Your task to perform on an android device: turn pop-ups on in chrome Image 0: 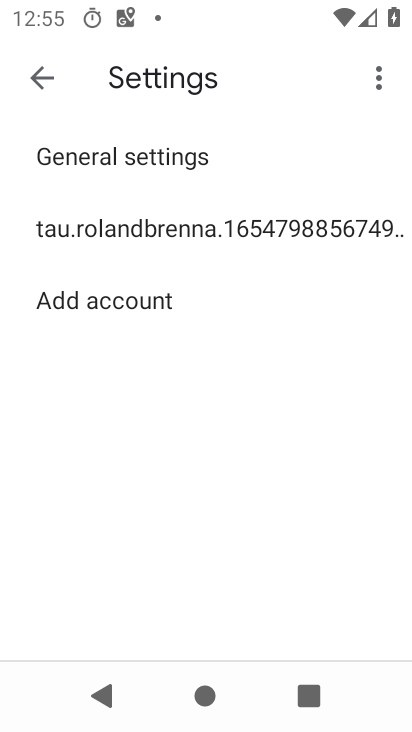
Step 0: press back button
Your task to perform on an android device: turn pop-ups on in chrome Image 1: 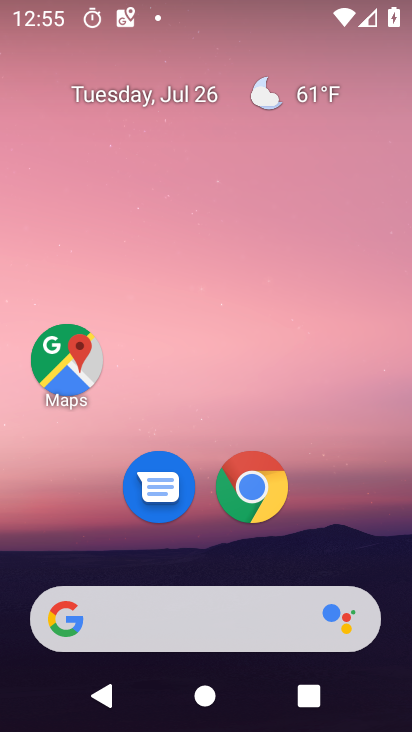
Step 1: click (246, 496)
Your task to perform on an android device: turn pop-ups on in chrome Image 2: 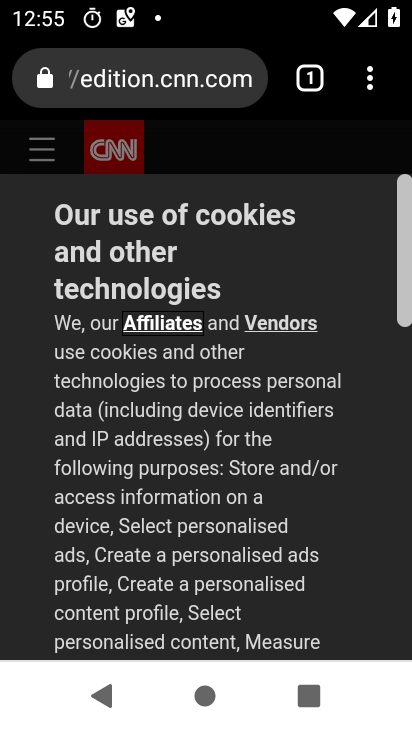
Step 2: drag from (371, 70) to (126, 555)
Your task to perform on an android device: turn pop-ups on in chrome Image 3: 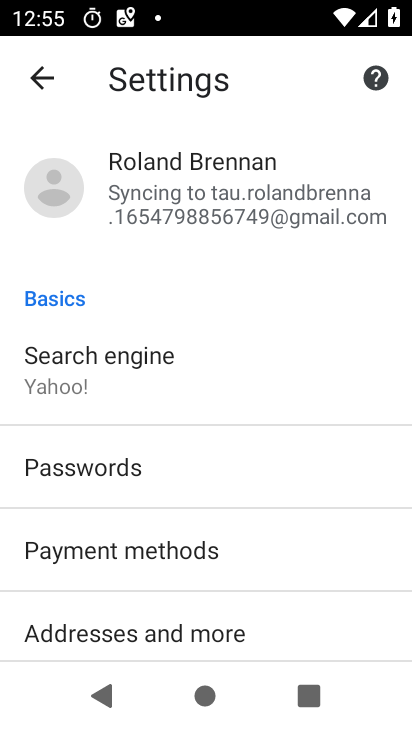
Step 3: drag from (145, 579) to (200, 18)
Your task to perform on an android device: turn pop-ups on in chrome Image 4: 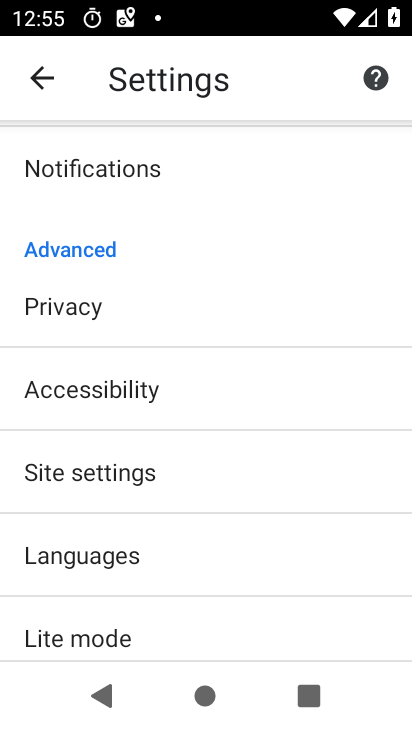
Step 4: click (86, 473)
Your task to perform on an android device: turn pop-ups on in chrome Image 5: 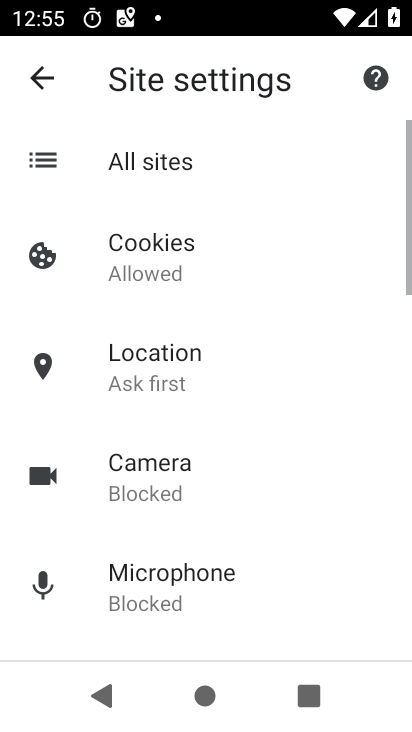
Step 5: drag from (146, 567) to (253, 76)
Your task to perform on an android device: turn pop-ups on in chrome Image 6: 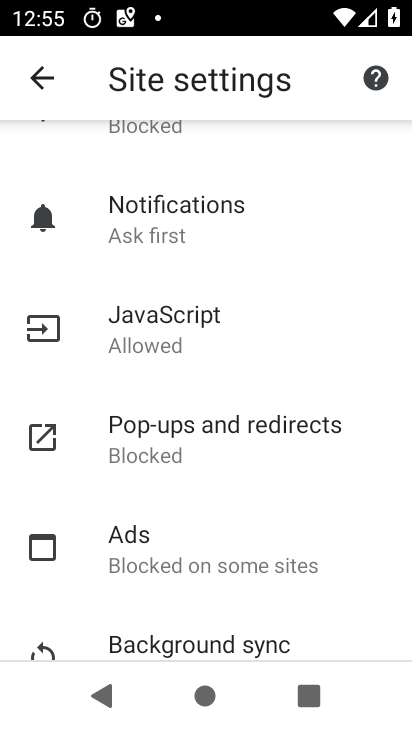
Step 6: click (175, 448)
Your task to perform on an android device: turn pop-ups on in chrome Image 7: 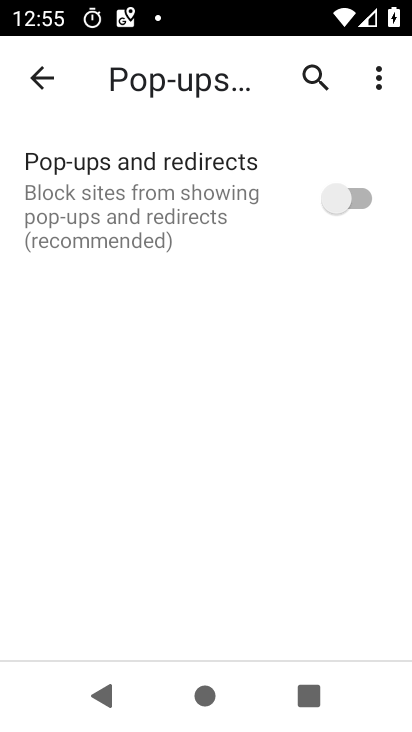
Step 7: click (351, 193)
Your task to perform on an android device: turn pop-ups on in chrome Image 8: 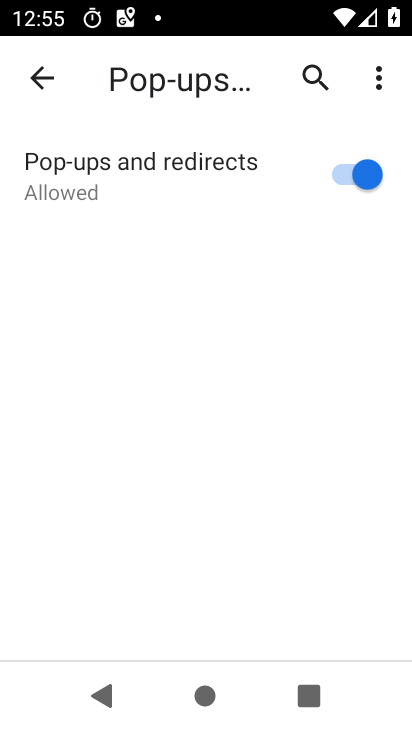
Step 8: task complete